Your task to perform on an android device: Open my contact list Image 0: 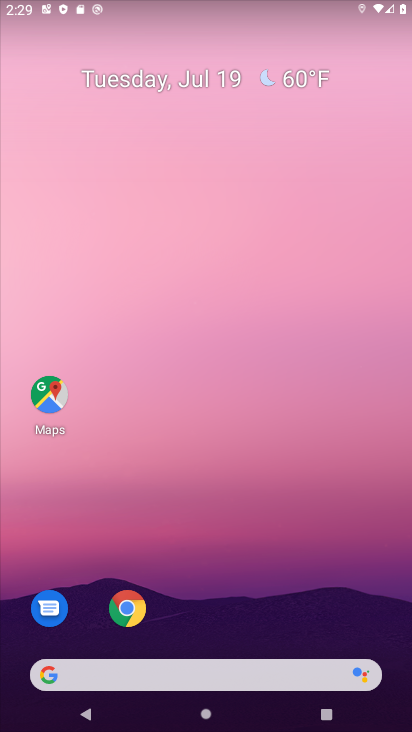
Step 0: drag from (234, 669) to (266, 228)
Your task to perform on an android device: Open my contact list Image 1: 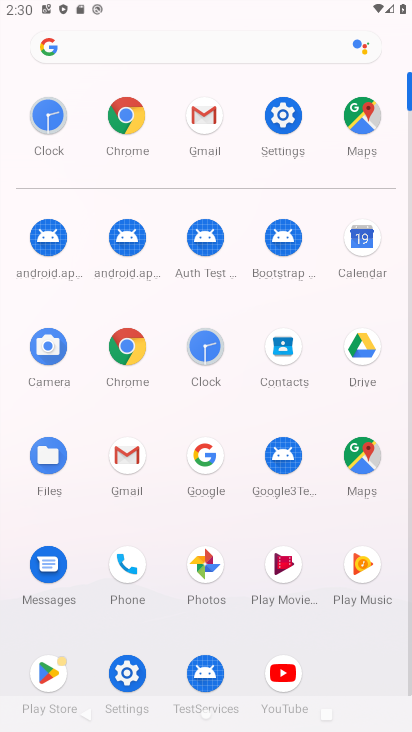
Step 1: click (117, 564)
Your task to perform on an android device: Open my contact list Image 2: 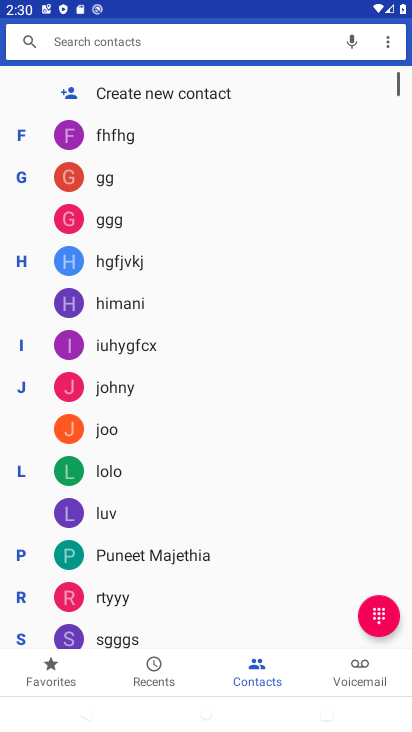
Step 2: task complete